Your task to perform on an android device: turn on showing notifications on the lock screen Image 0: 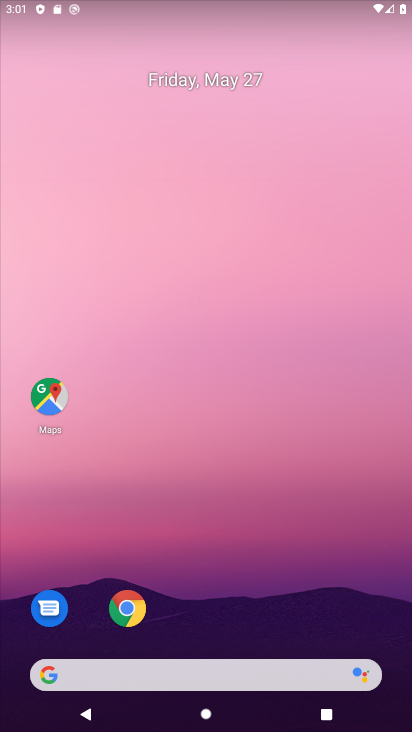
Step 0: drag from (184, 660) to (278, 236)
Your task to perform on an android device: turn on showing notifications on the lock screen Image 1: 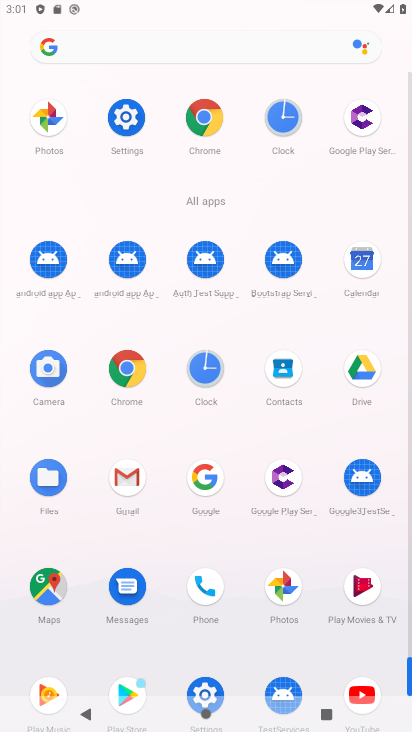
Step 1: drag from (230, 598) to (301, 320)
Your task to perform on an android device: turn on showing notifications on the lock screen Image 2: 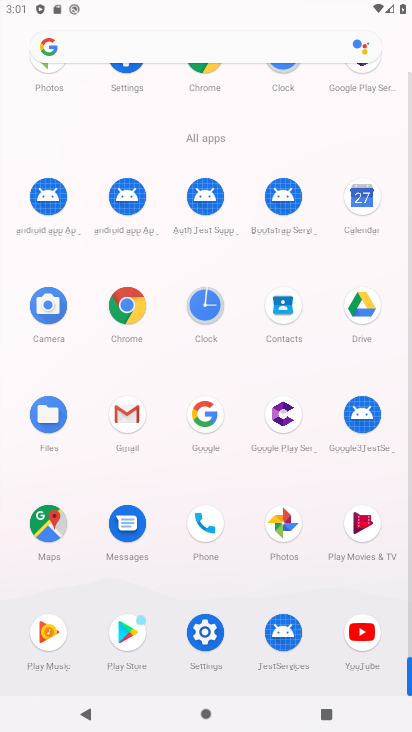
Step 2: click (201, 634)
Your task to perform on an android device: turn on showing notifications on the lock screen Image 3: 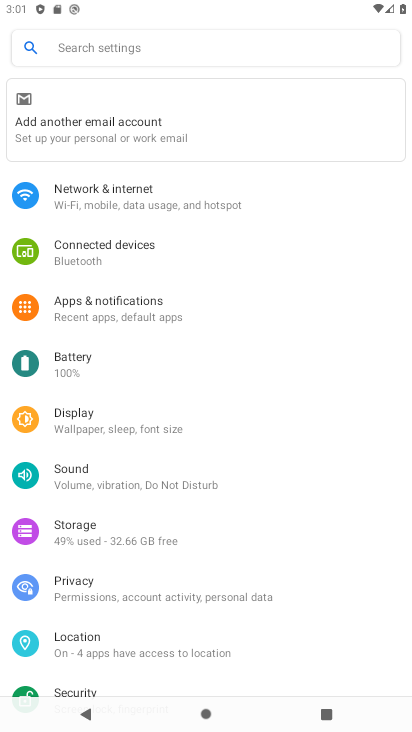
Step 3: click (159, 313)
Your task to perform on an android device: turn on showing notifications on the lock screen Image 4: 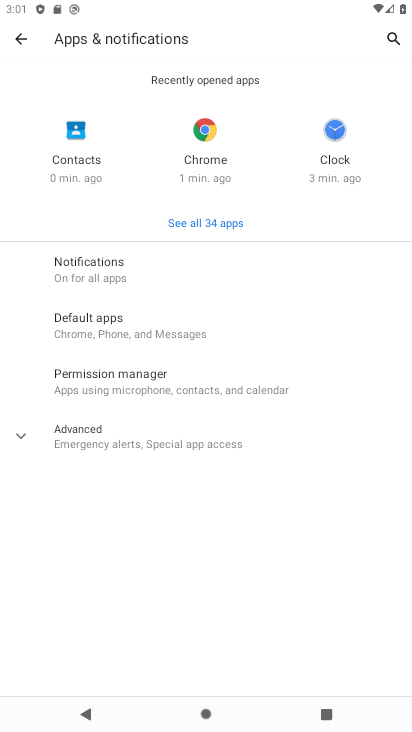
Step 4: click (137, 266)
Your task to perform on an android device: turn on showing notifications on the lock screen Image 5: 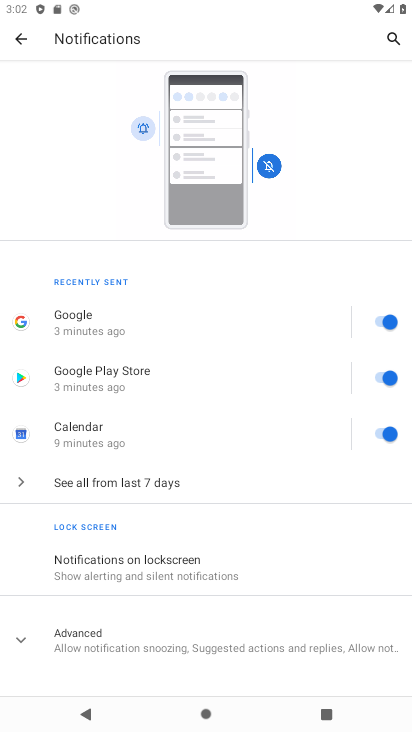
Step 5: drag from (168, 605) to (249, 420)
Your task to perform on an android device: turn on showing notifications on the lock screen Image 6: 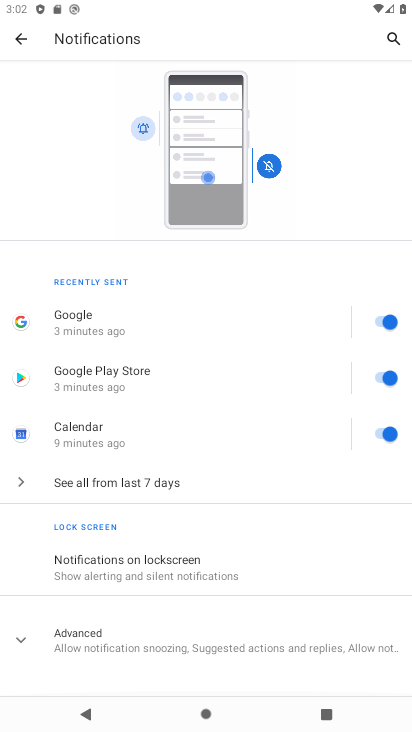
Step 6: click (184, 582)
Your task to perform on an android device: turn on showing notifications on the lock screen Image 7: 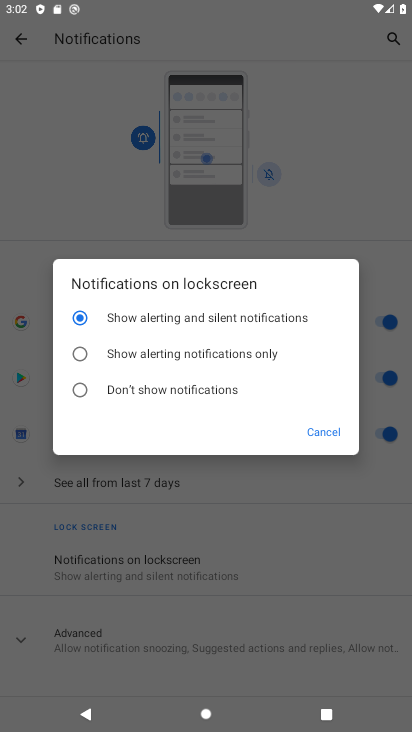
Step 7: task complete